Your task to perform on an android device: turn on the 24-hour format for clock Image 0: 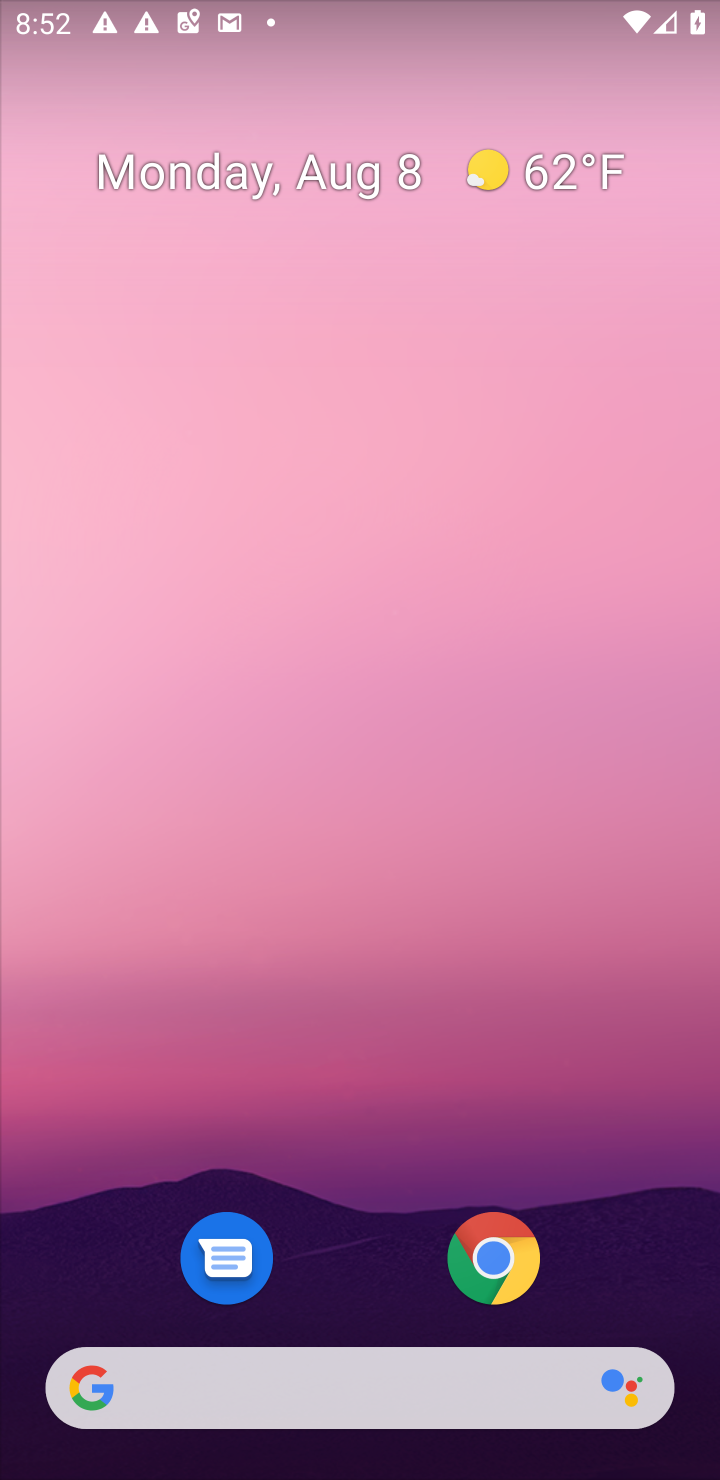
Step 0: drag from (483, 975) to (541, 407)
Your task to perform on an android device: turn on the 24-hour format for clock Image 1: 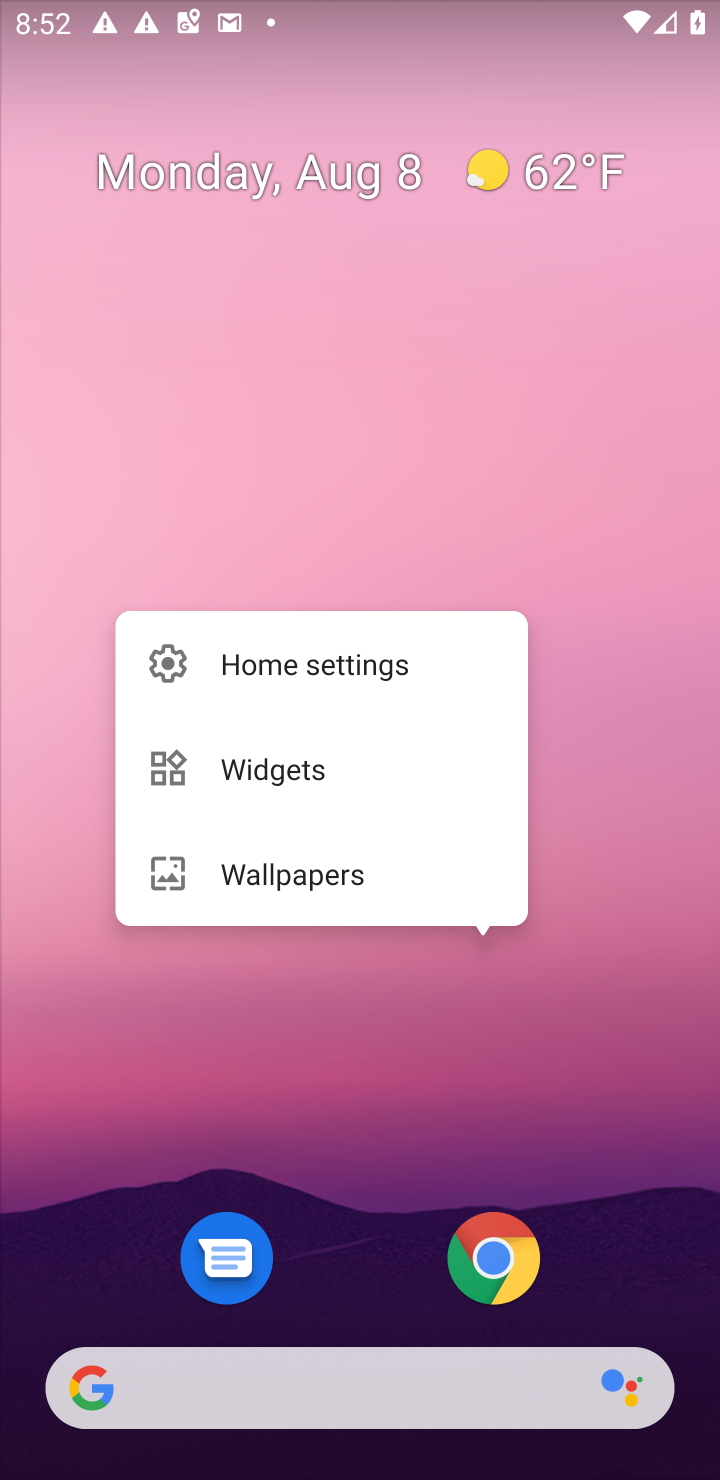
Step 1: click (576, 923)
Your task to perform on an android device: turn on the 24-hour format for clock Image 2: 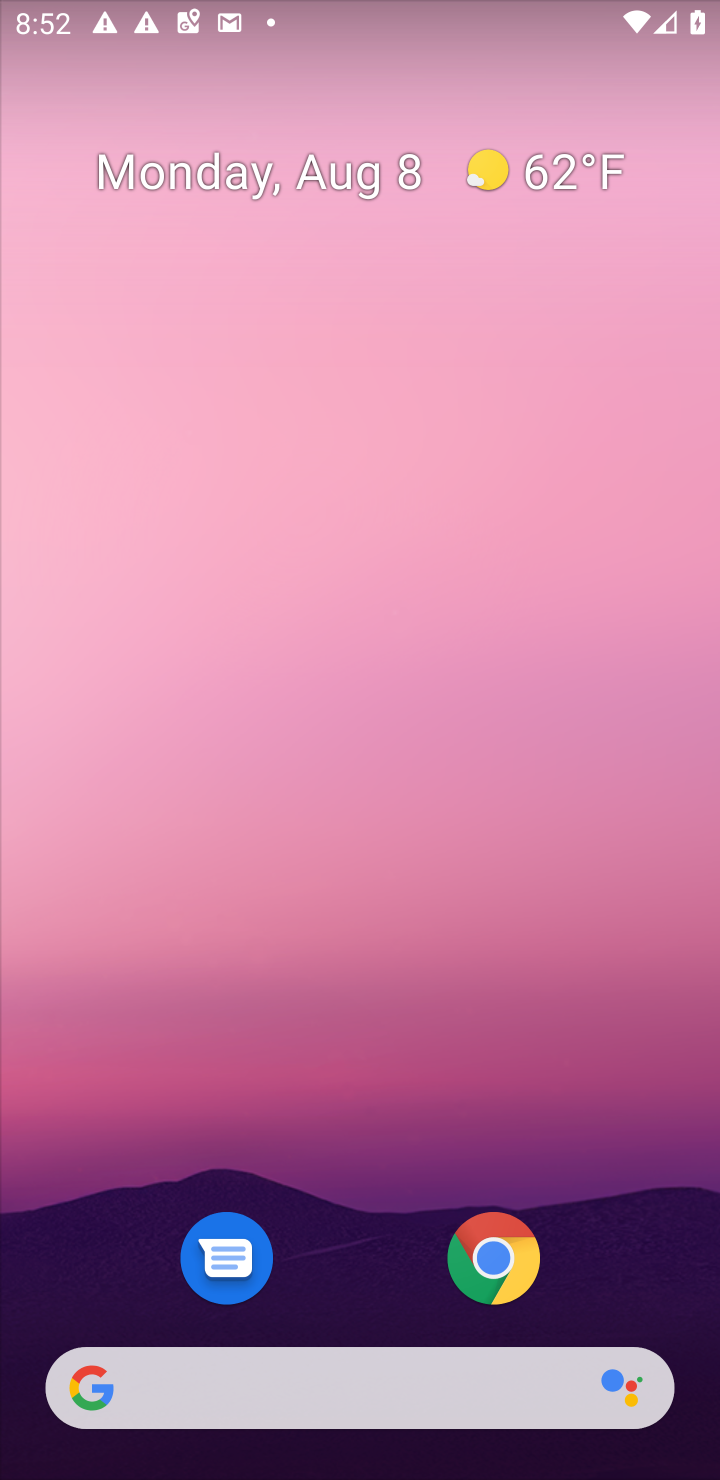
Step 2: drag from (351, 1125) to (567, 352)
Your task to perform on an android device: turn on the 24-hour format for clock Image 3: 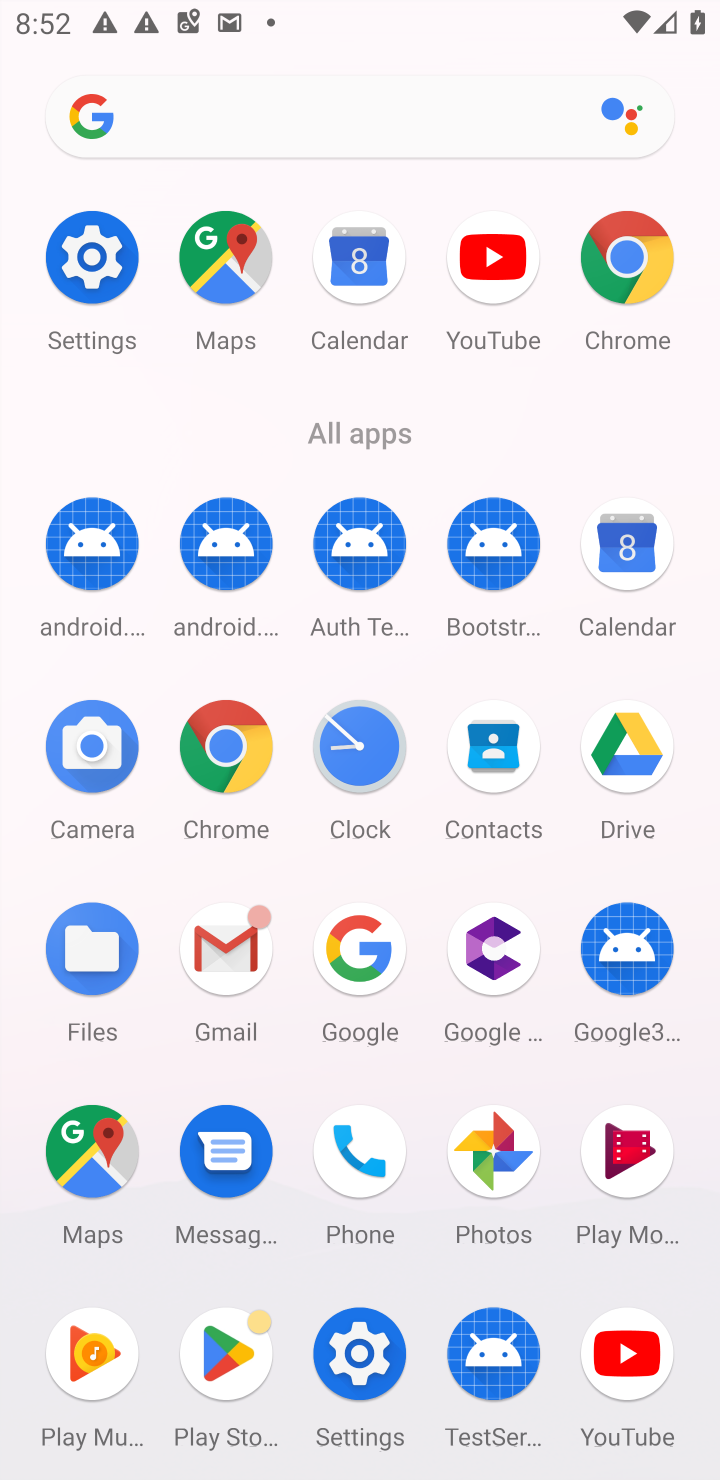
Step 3: click (382, 756)
Your task to perform on an android device: turn on the 24-hour format for clock Image 4: 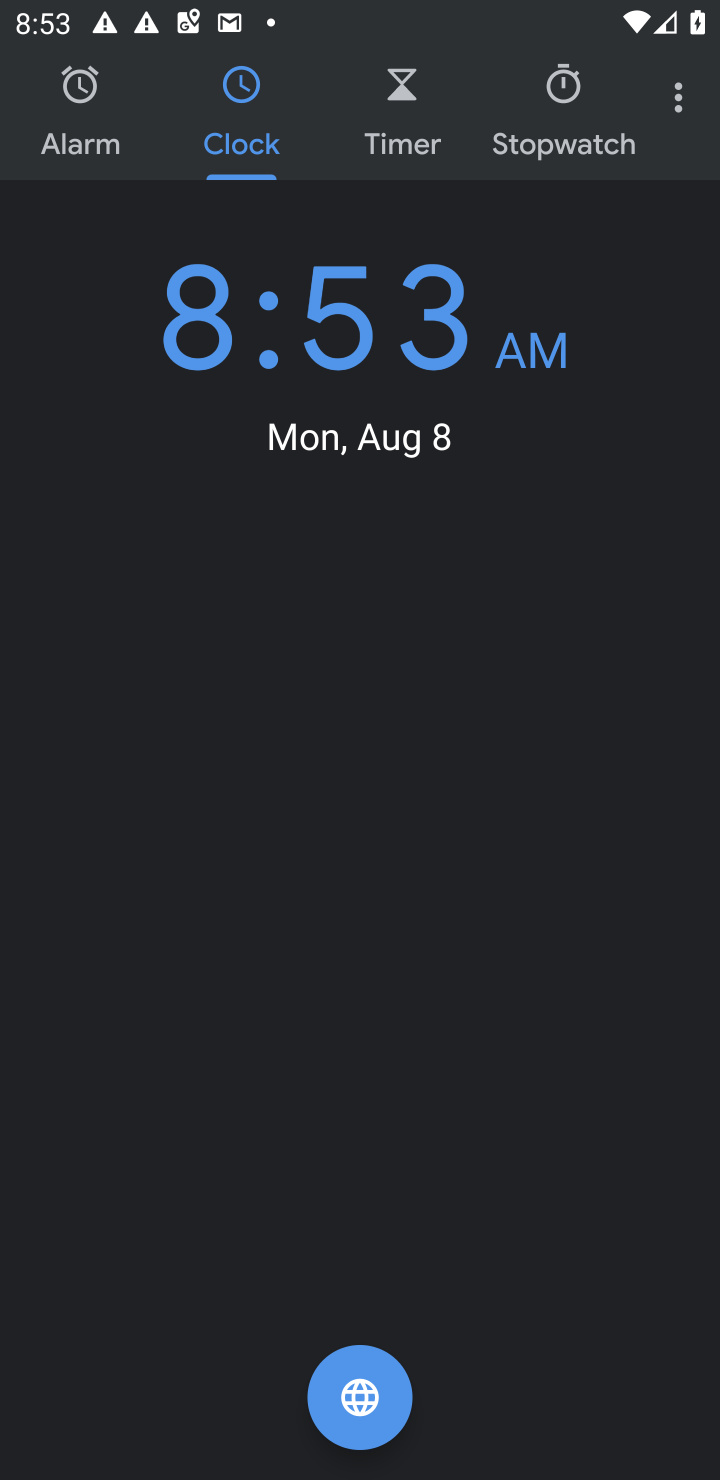
Step 4: click (670, 117)
Your task to perform on an android device: turn on the 24-hour format for clock Image 5: 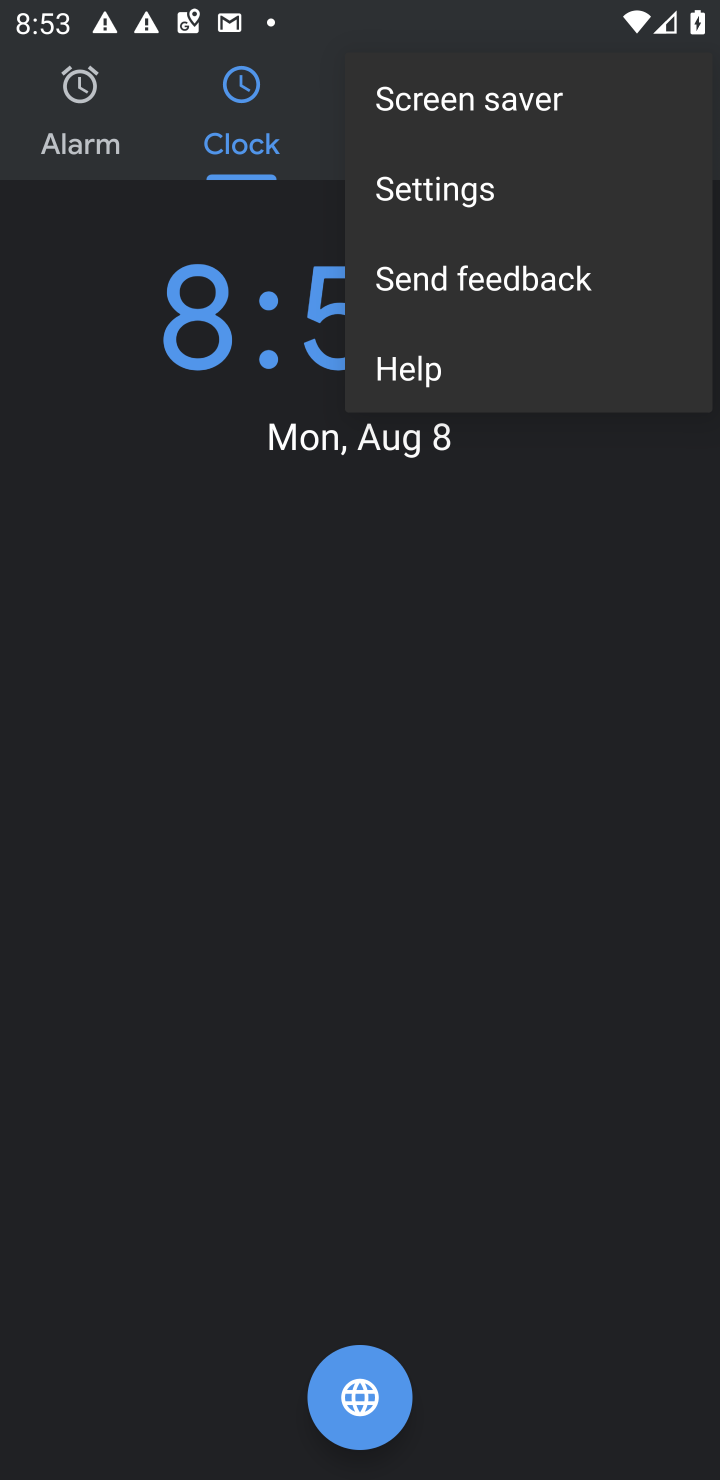
Step 5: click (482, 204)
Your task to perform on an android device: turn on the 24-hour format for clock Image 6: 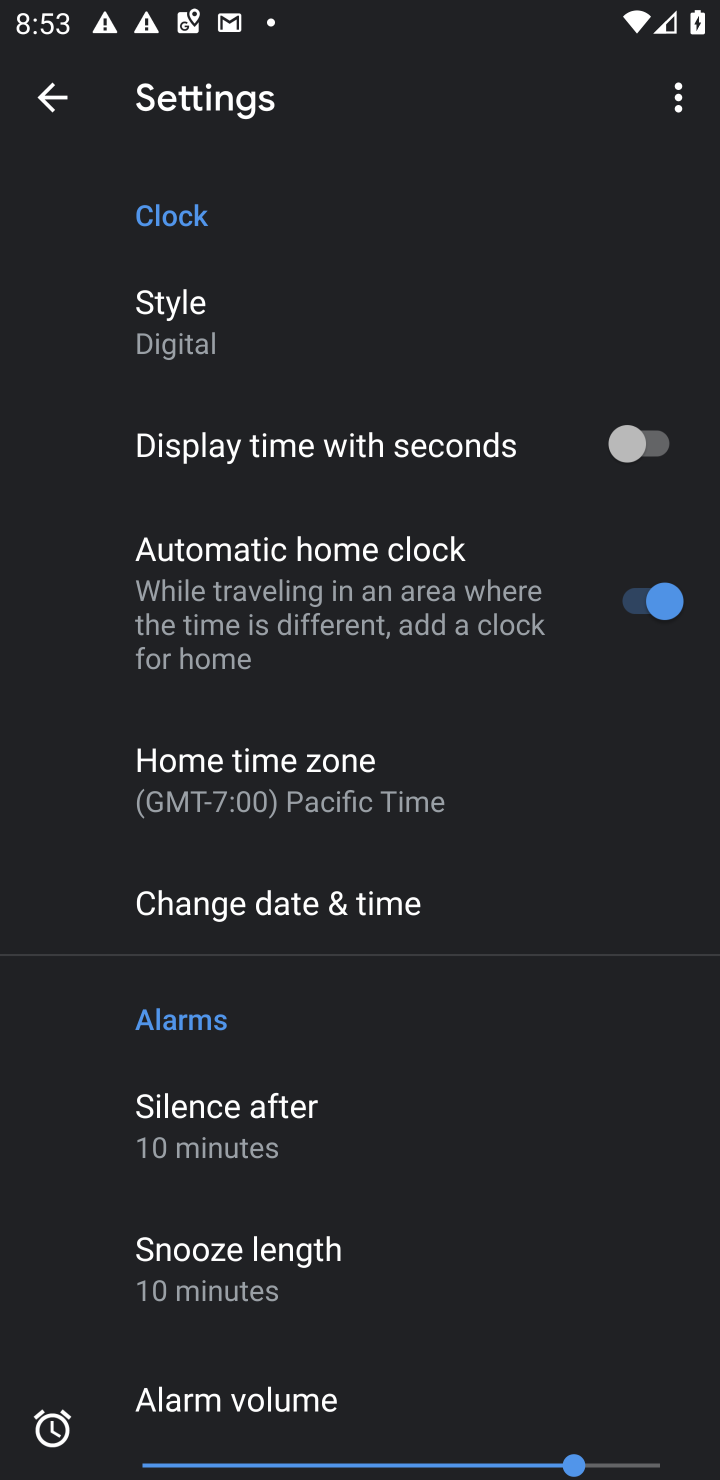
Step 6: task complete